Your task to perform on an android device: toggle location history Image 0: 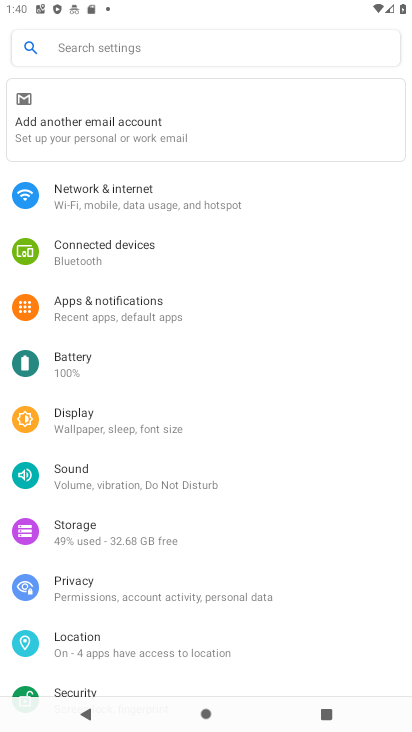
Step 0: click (122, 642)
Your task to perform on an android device: toggle location history Image 1: 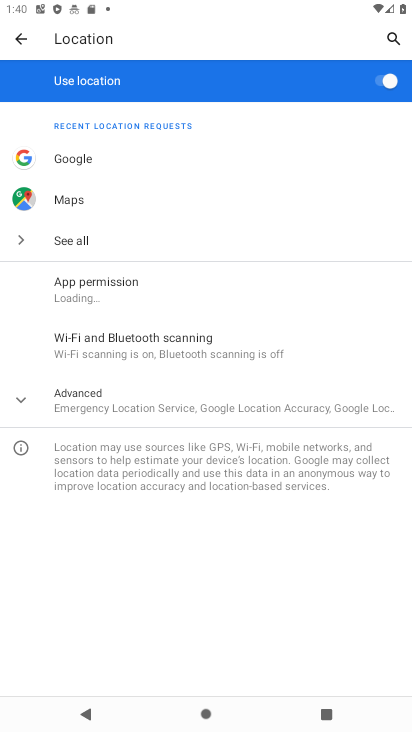
Step 1: click (120, 650)
Your task to perform on an android device: toggle location history Image 2: 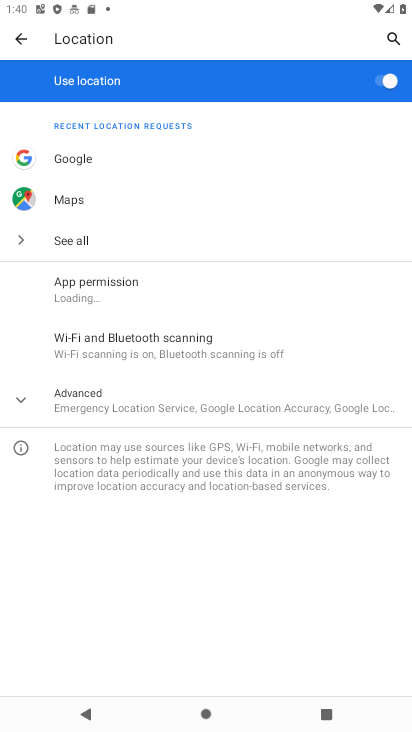
Step 2: click (212, 398)
Your task to perform on an android device: toggle location history Image 3: 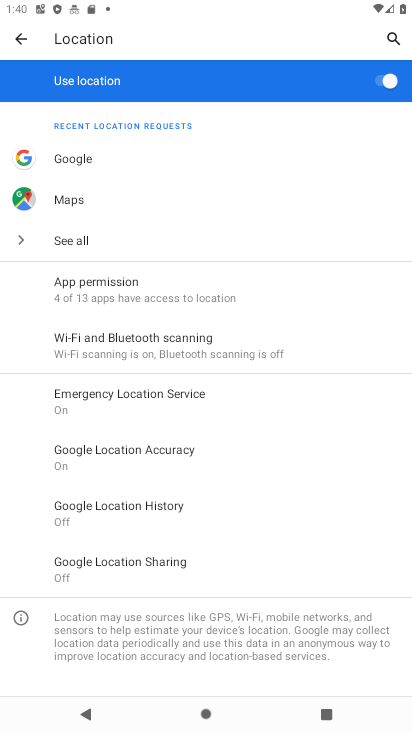
Step 3: click (233, 514)
Your task to perform on an android device: toggle location history Image 4: 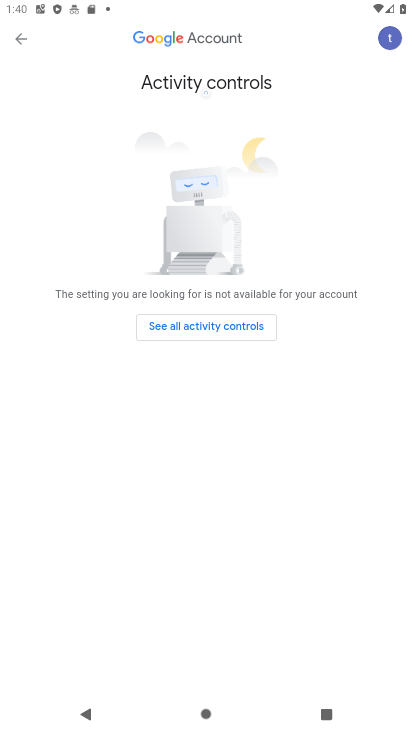
Step 4: task complete